Your task to perform on an android device: Is it going to rain today? Image 0: 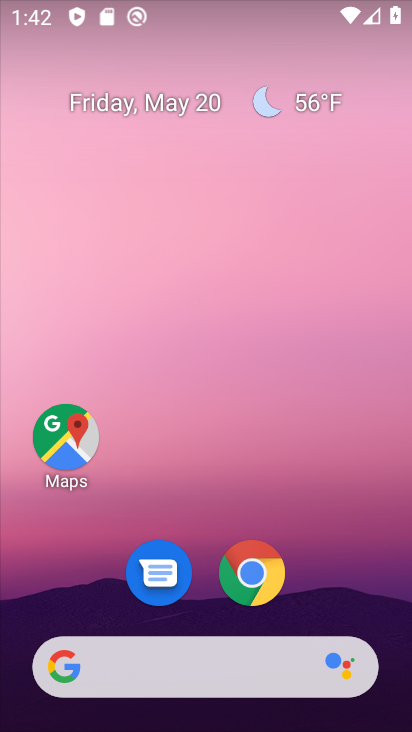
Step 0: drag from (386, 658) to (262, 61)
Your task to perform on an android device: Is it going to rain today? Image 1: 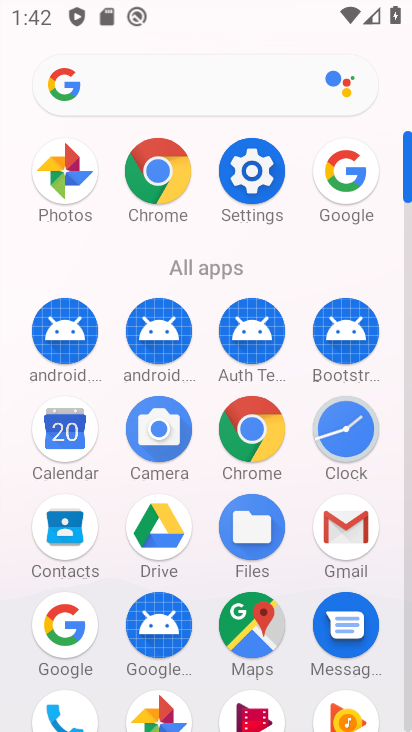
Step 1: click (340, 172)
Your task to perform on an android device: Is it going to rain today? Image 2: 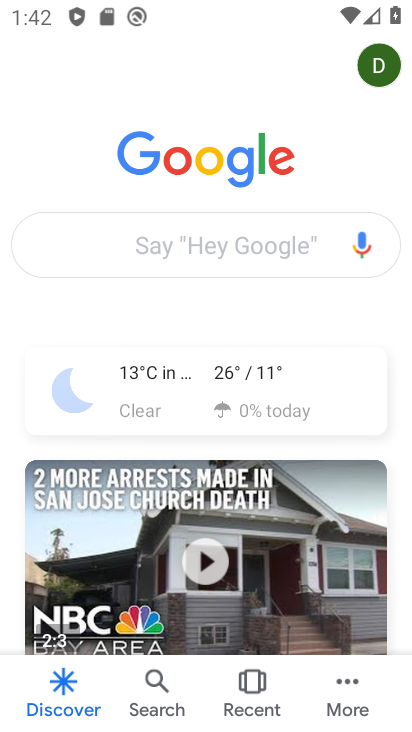
Step 2: click (179, 256)
Your task to perform on an android device: Is it going to rain today? Image 3: 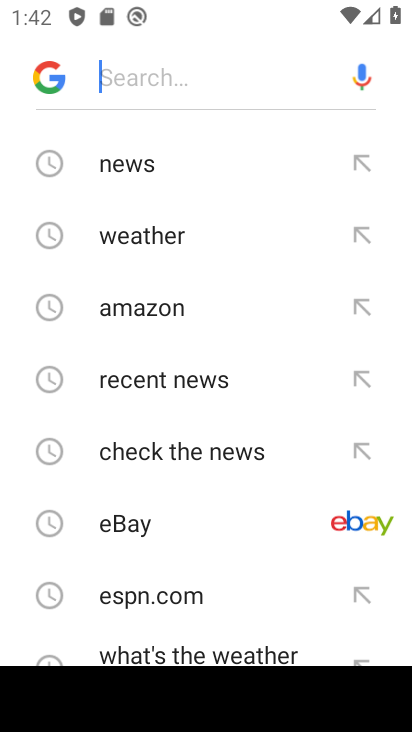
Step 3: drag from (216, 607) to (228, 151)
Your task to perform on an android device: Is it going to rain today? Image 4: 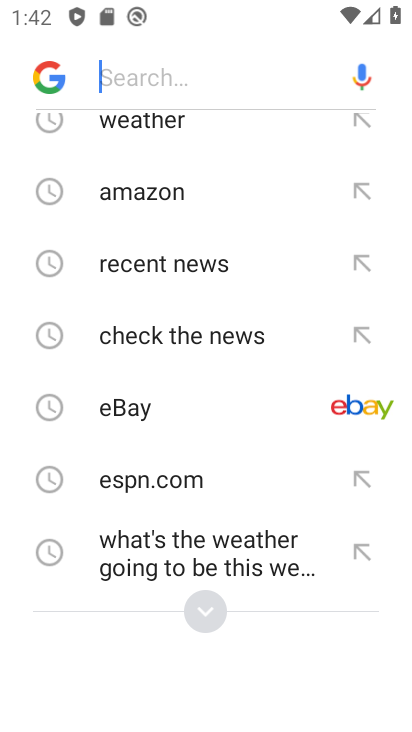
Step 4: click (218, 597)
Your task to perform on an android device: Is it going to rain today? Image 5: 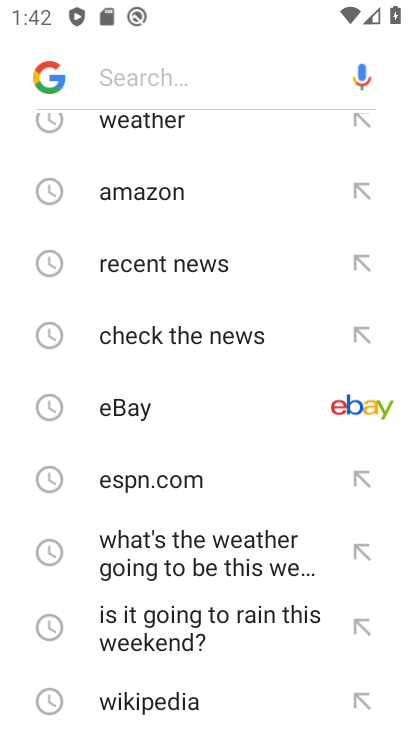
Step 5: drag from (188, 650) to (237, 251)
Your task to perform on an android device: Is it going to rain today? Image 6: 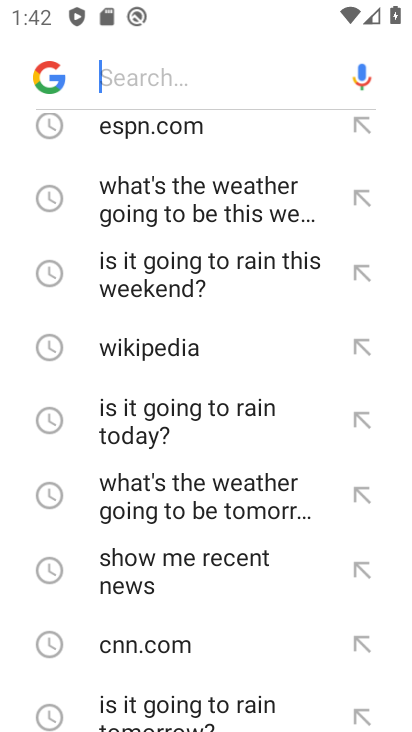
Step 6: click (205, 431)
Your task to perform on an android device: Is it going to rain today? Image 7: 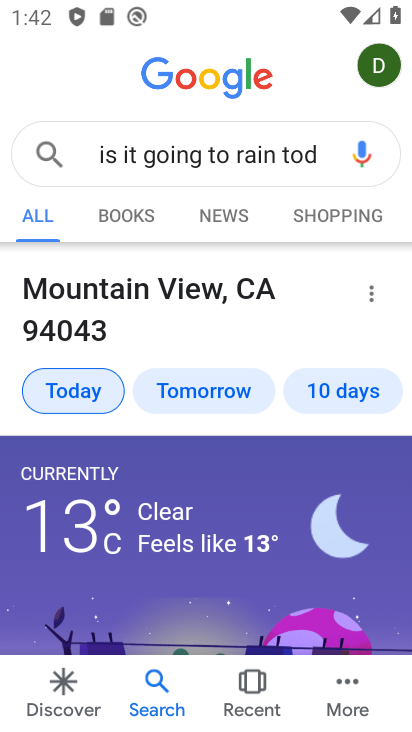
Step 7: task complete